Your task to perform on an android device: Go to sound settings Image 0: 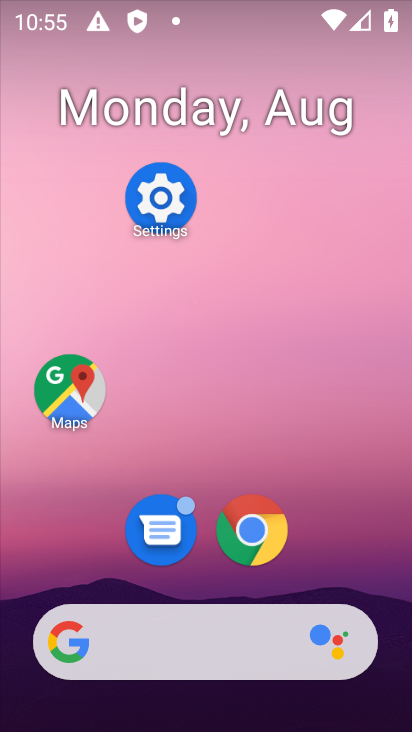
Step 0: drag from (208, 143) to (202, 209)
Your task to perform on an android device: Go to sound settings Image 1: 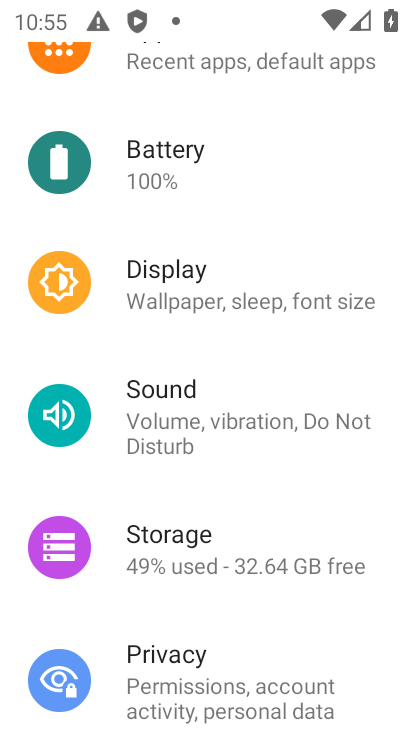
Step 1: click (192, 403)
Your task to perform on an android device: Go to sound settings Image 2: 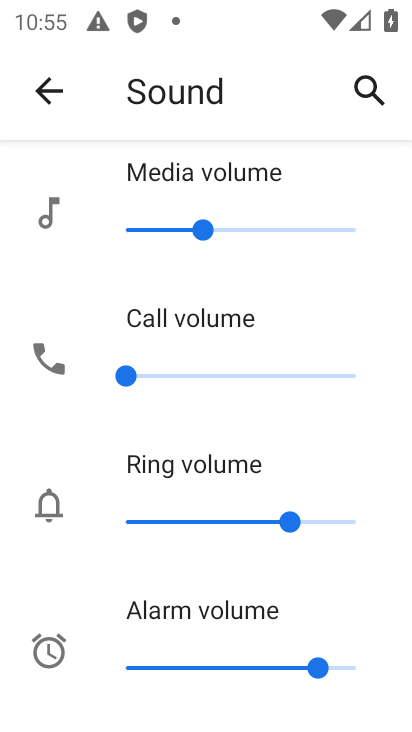
Step 2: task complete